Your task to perform on an android device: Go to Reddit.com Image 0: 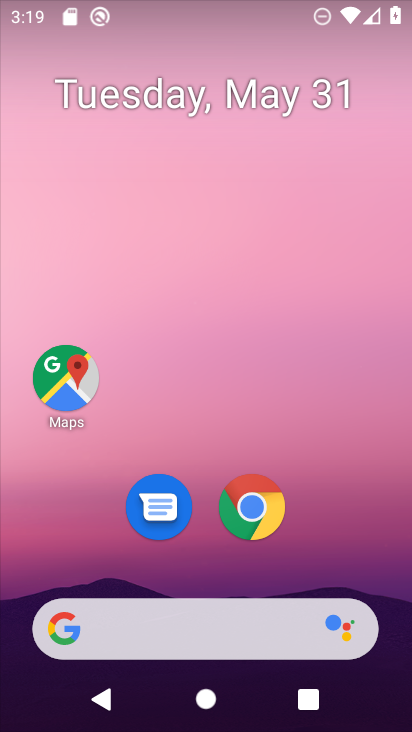
Step 0: click (274, 525)
Your task to perform on an android device: Go to Reddit.com Image 1: 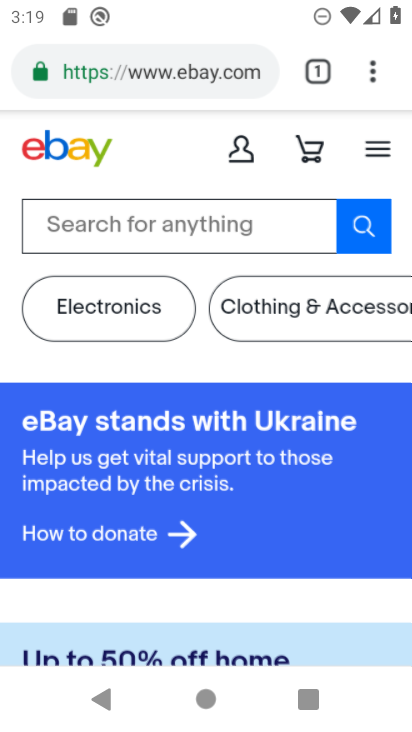
Step 1: click (316, 62)
Your task to perform on an android device: Go to Reddit.com Image 2: 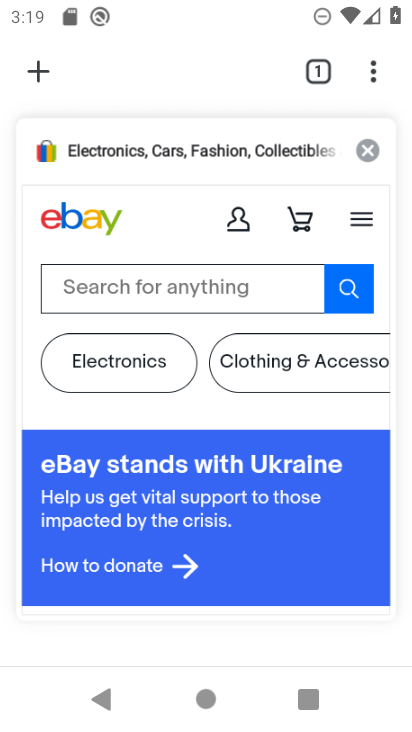
Step 2: click (367, 150)
Your task to perform on an android device: Go to Reddit.com Image 3: 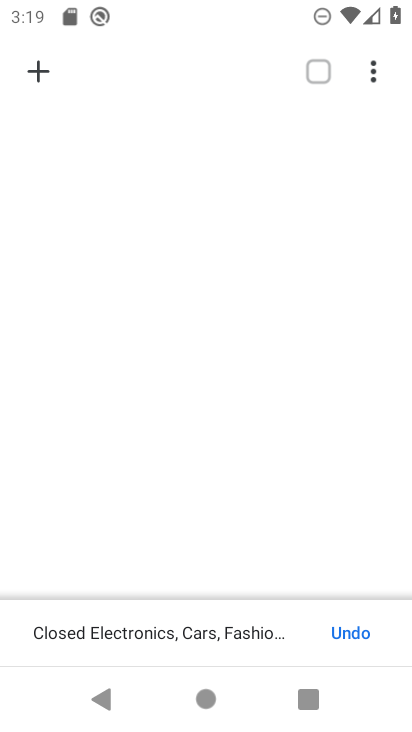
Step 3: click (36, 76)
Your task to perform on an android device: Go to Reddit.com Image 4: 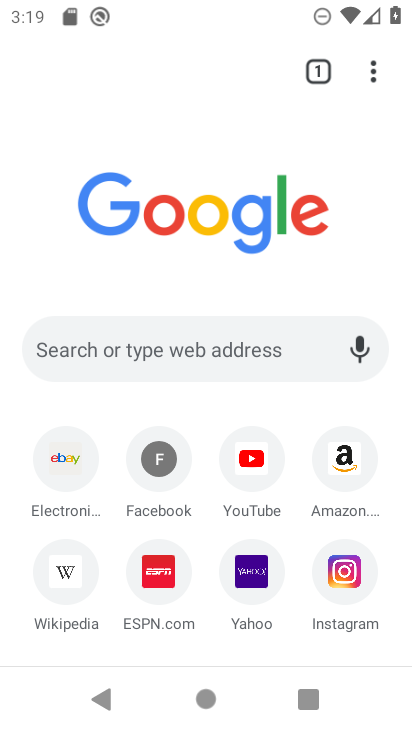
Step 4: click (219, 366)
Your task to perform on an android device: Go to Reddit.com Image 5: 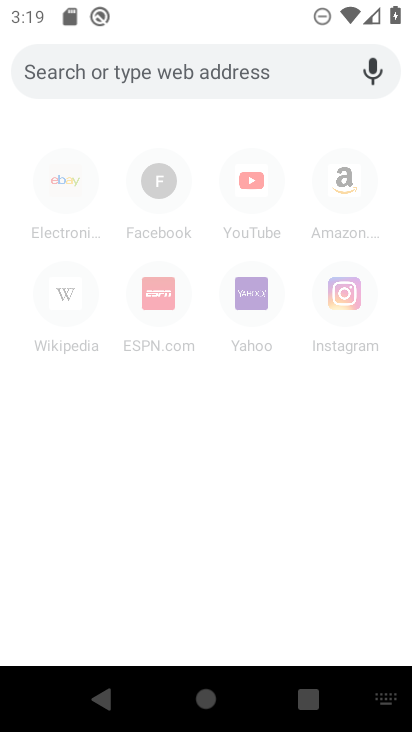
Step 5: type "reddit.com"
Your task to perform on an android device: Go to Reddit.com Image 6: 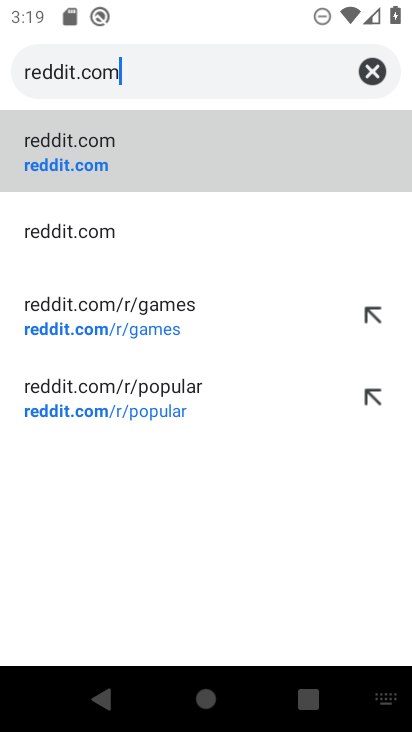
Step 6: click (239, 156)
Your task to perform on an android device: Go to Reddit.com Image 7: 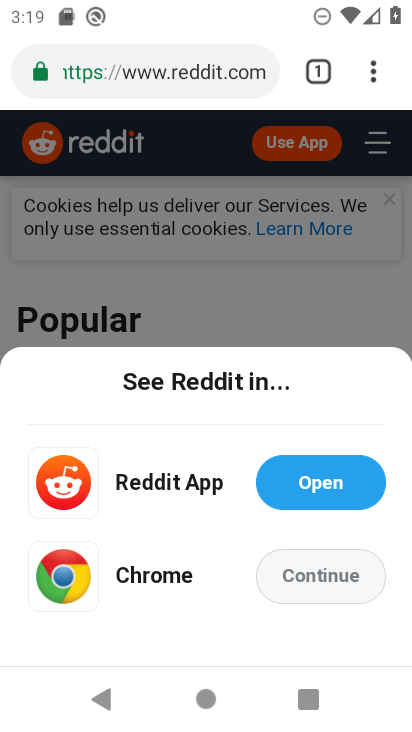
Step 7: click (252, 591)
Your task to perform on an android device: Go to Reddit.com Image 8: 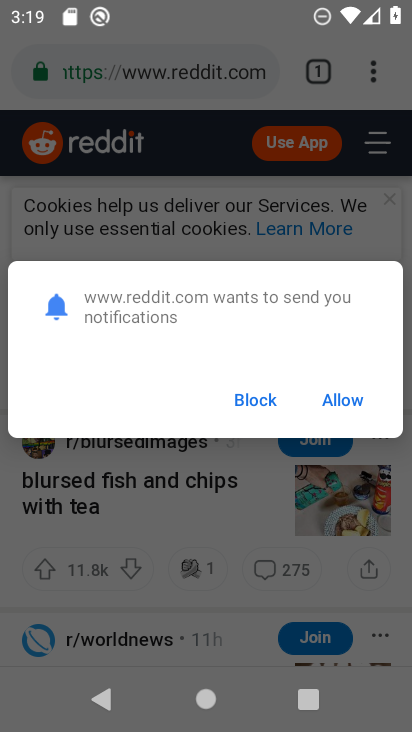
Step 8: click (268, 404)
Your task to perform on an android device: Go to Reddit.com Image 9: 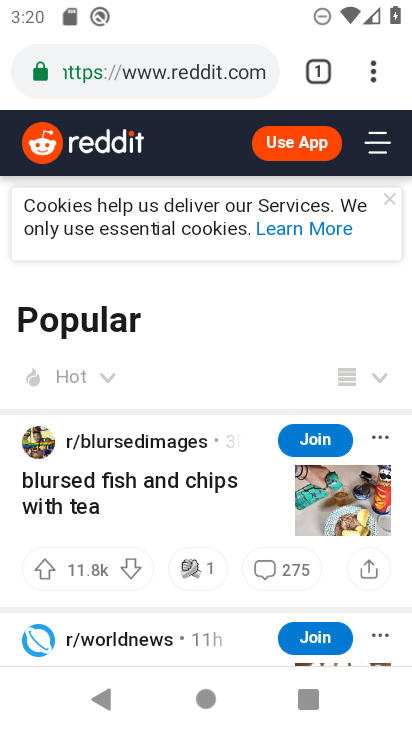
Step 9: task complete